Your task to perform on an android device: delete a single message in the gmail app Image 0: 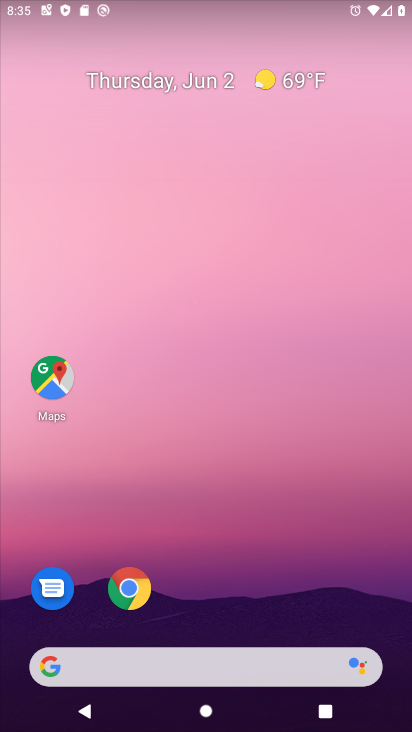
Step 0: drag from (242, 723) to (253, 82)
Your task to perform on an android device: delete a single message in the gmail app Image 1: 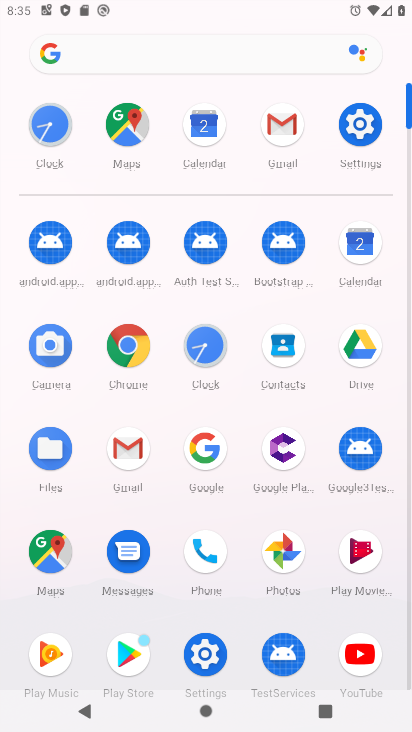
Step 1: click (120, 438)
Your task to perform on an android device: delete a single message in the gmail app Image 2: 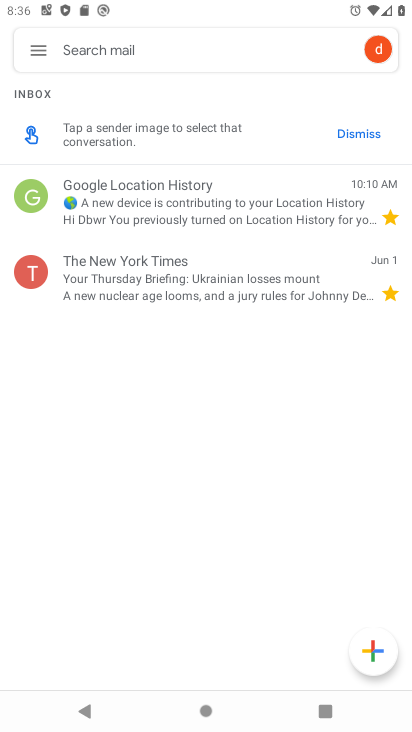
Step 2: click (169, 212)
Your task to perform on an android device: delete a single message in the gmail app Image 3: 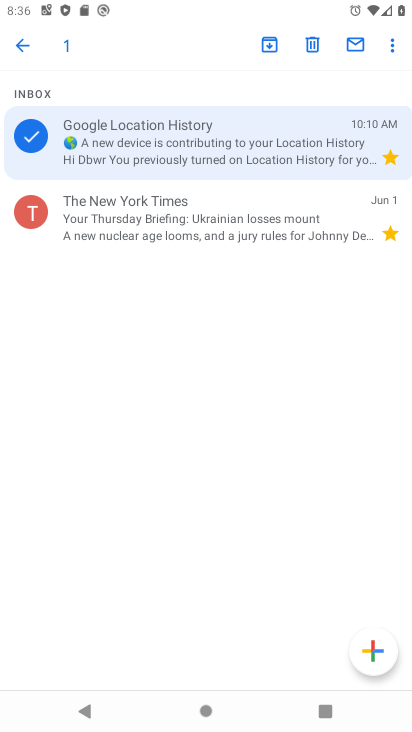
Step 3: click (314, 40)
Your task to perform on an android device: delete a single message in the gmail app Image 4: 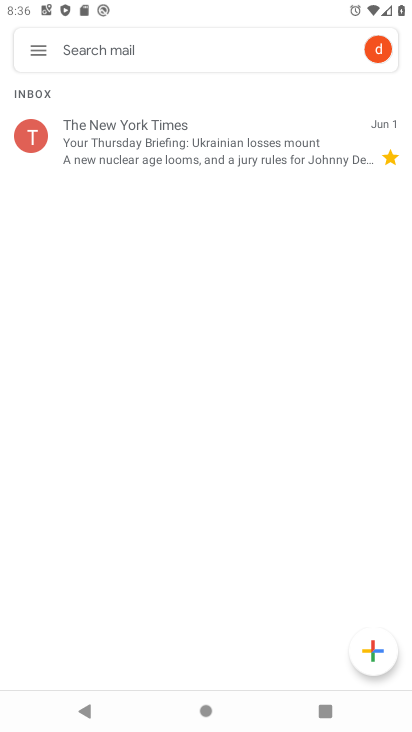
Step 4: task complete